Your task to perform on an android device: What is the news today? Image 0: 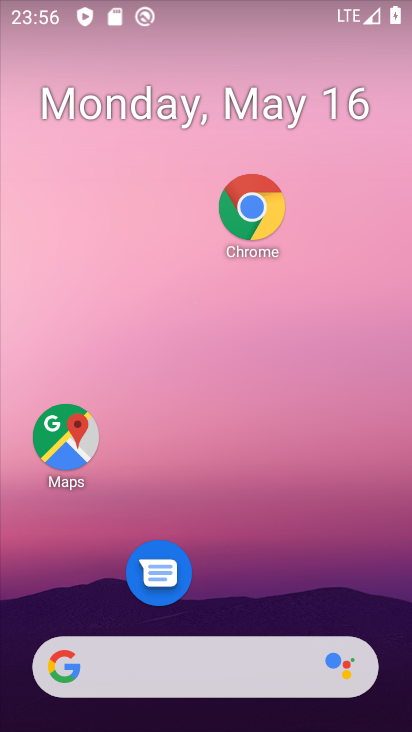
Step 0: drag from (262, 608) to (279, 4)
Your task to perform on an android device: What is the news today? Image 1: 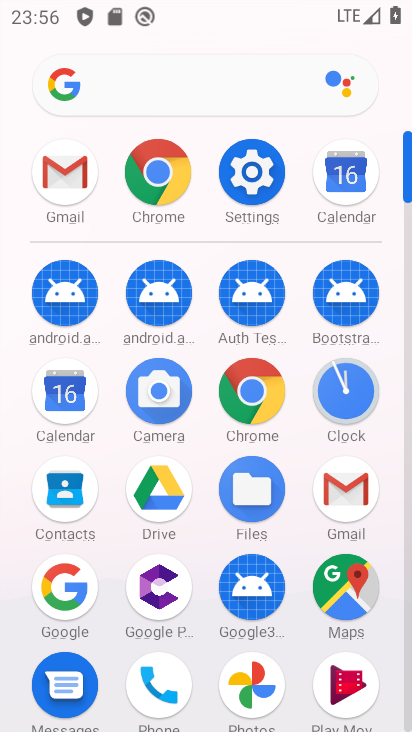
Step 1: click (238, 386)
Your task to perform on an android device: What is the news today? Image 2: 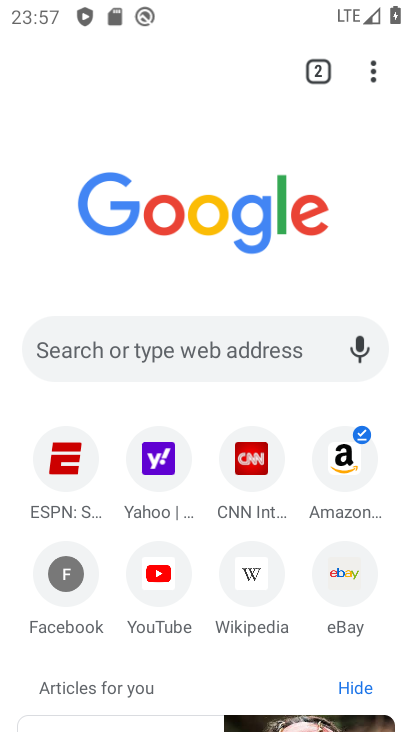
Step 2: click (155, 345)
Your task to perform on an android device: What is the news today? Image 3: 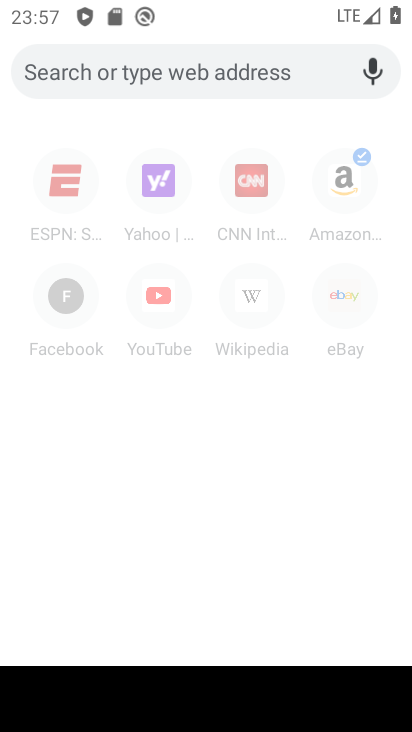
Step 3: type "news today"
Your task to perform on an android device: What is the news today? Image 4: 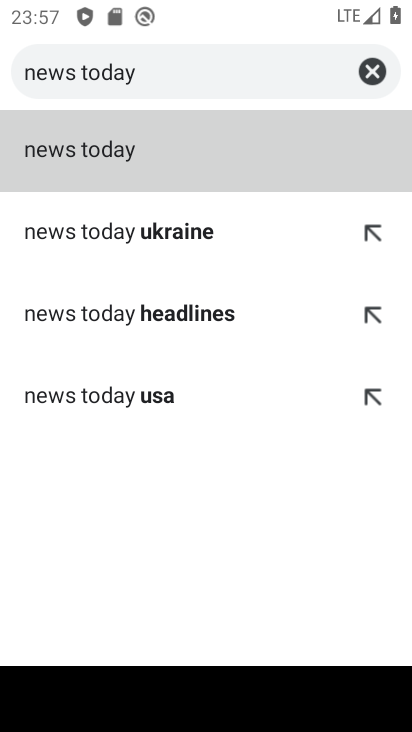
Step 4: click (228, 155)
Your task to perform on an android device: What is the news today? Image 5: 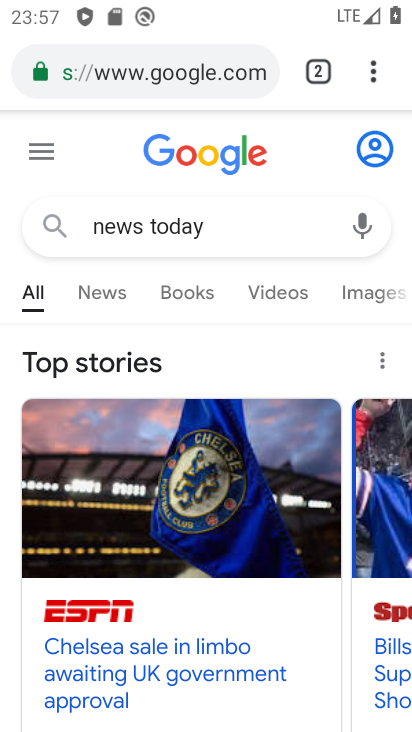
Step 5: task complete